Your task to perform on an android device: search for starred emails in the gmail app Image 0: 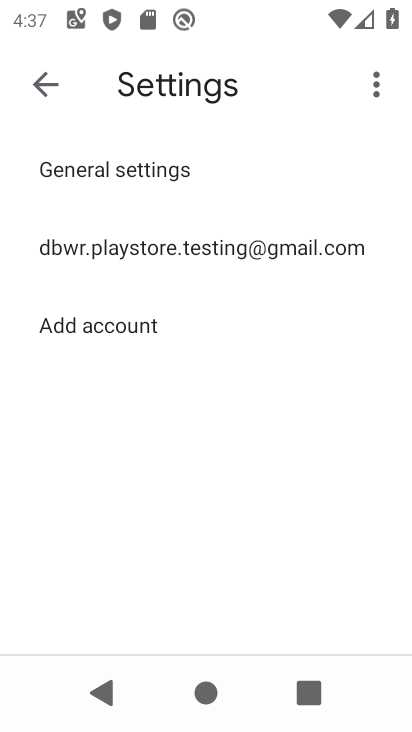
Step 0: press home button
Your task to perform on an android device: search for starred emails in the gmail app Image 1: 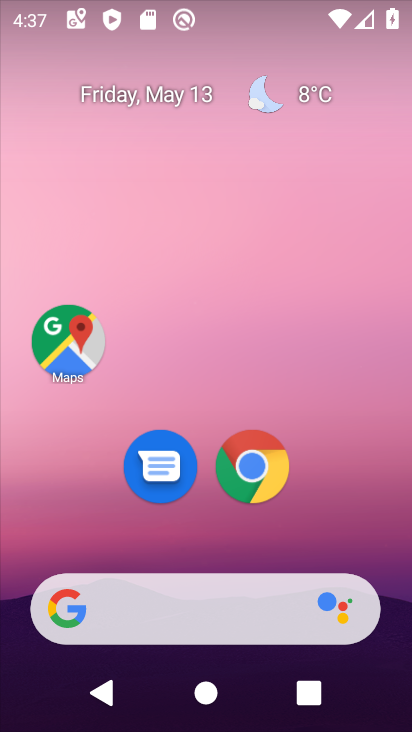
Step 1: drag from (372, 577) to (349, 48)
Your task to perform on an android device: search for starred emails in the gmail app Image 2: 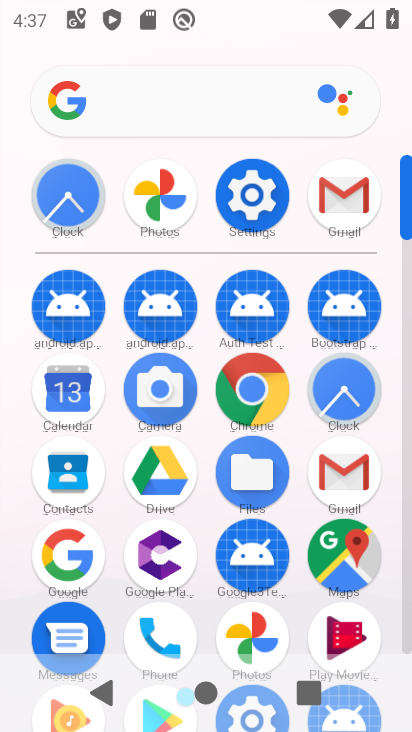
Step 2: click (341, 468)
Your task to perform on an android device: search for starred emails in the gmail app Image 3: 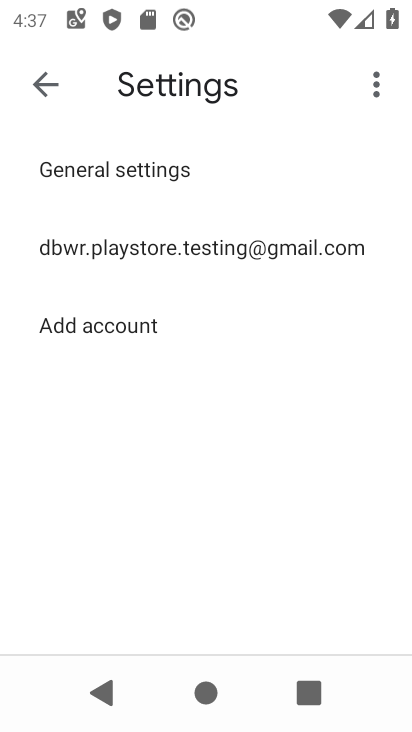
Step 3: press back button
Your task to perform on an android device: search for starred emails in the gmail app Image 4: 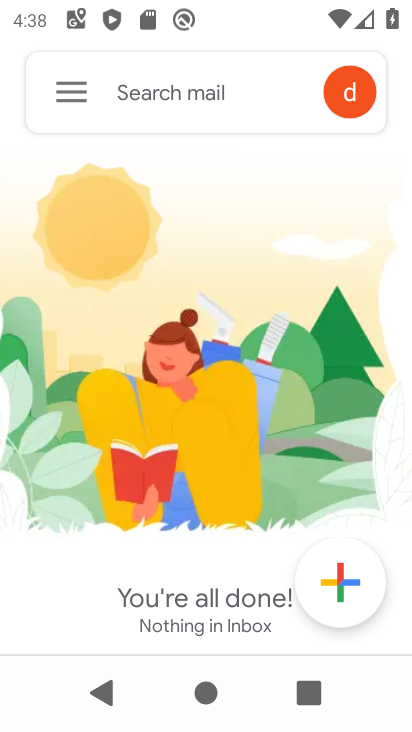
Step 4: click (70, 89)
Your task to perform on an android device: search for starred emails in the gmail app Image 5: 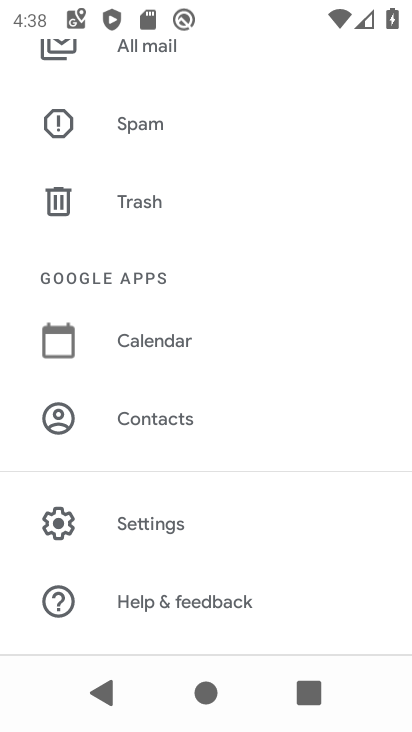
Step 5: drag from (254, 133) to (249, 565)
Your task to perform on an android device: search for starred emails in the gmail app Image 6: 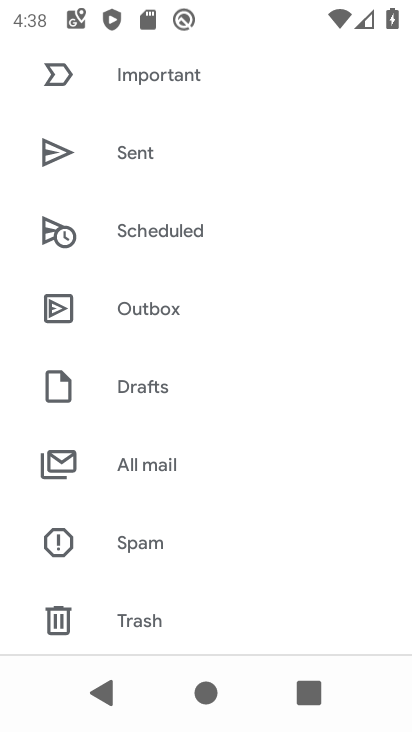
Step 6: drag from (308, 138) to (243, 656)
Your task to perform on an android device: search for starred emails in the gmail app Image 7: 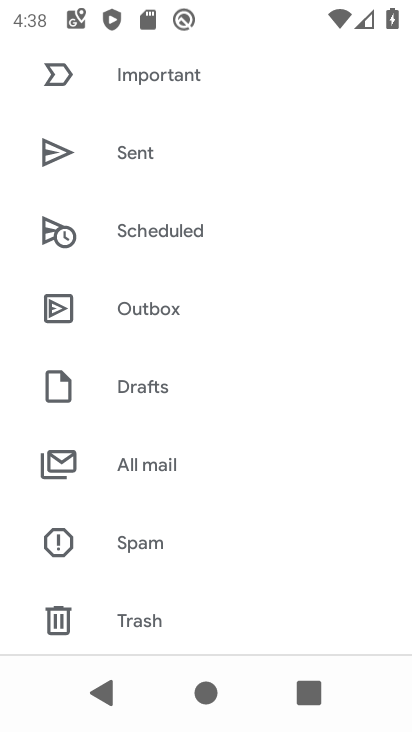
Step 7: drag from (242, 140) to (251, 525)
Your task to perform on an android device: search for starred emails in the gmail app Image 8: 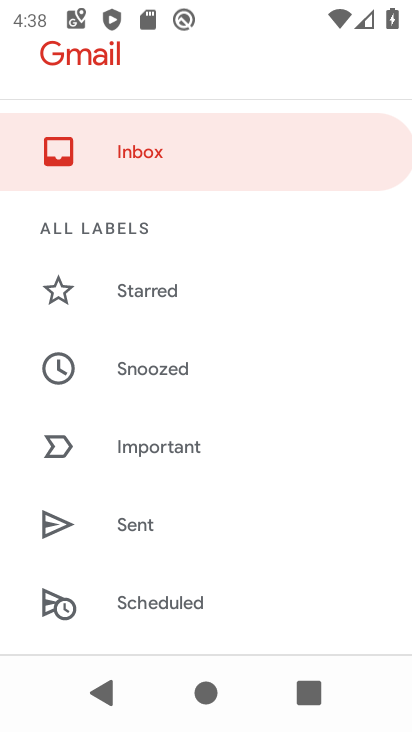
Step 8: click (137, 284)
Your task to perform on an android device: search for starred emails in the gmail app Image 9: 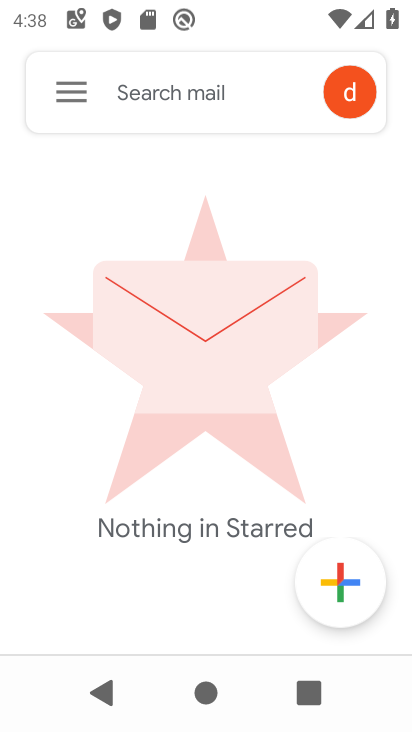
Step 9: task complete